Your task to perform on an android device: see tabs open on other devices in the chrome app Image 0: 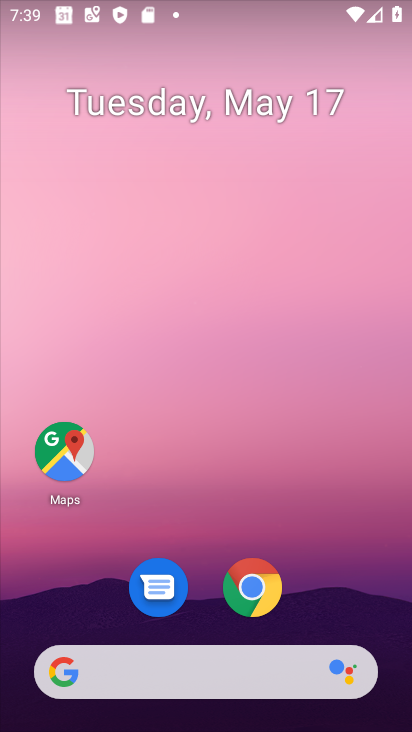
Step 0: click (255, 590)
Your task to perform on an android device: see tabs open on other devices in the chrome app Image 1: 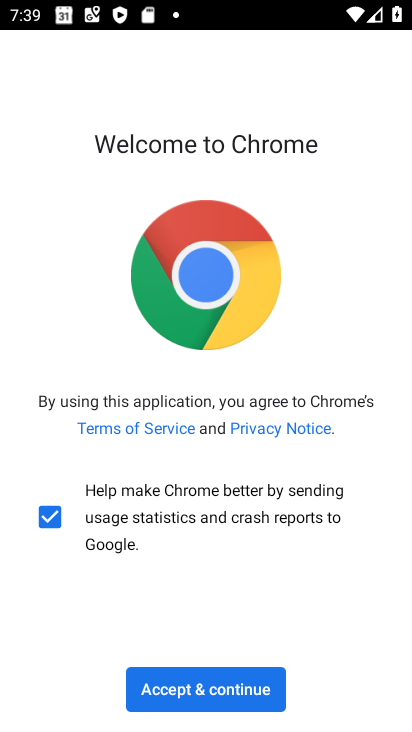
Step 1: click (181, 689)
Your task to perform on an android device: see tabs open on other devices in the chrome app Image 2: 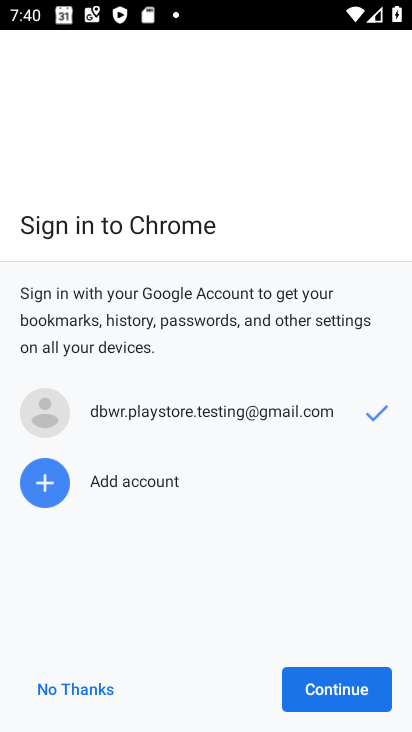
Step 2: click (331, 692)
Your task to perform on an android device: see tabs open on other devices in the chrome app Image 3: 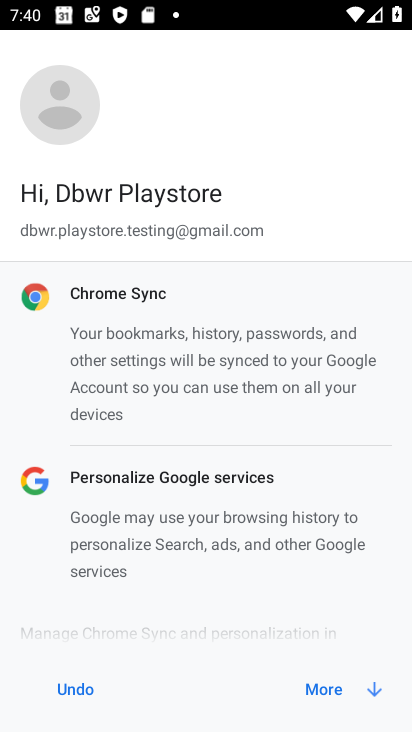
Step 3: click (329, 691)
Your task to perform on an android device: see tabs open on other devices in the chrome app Image 4: 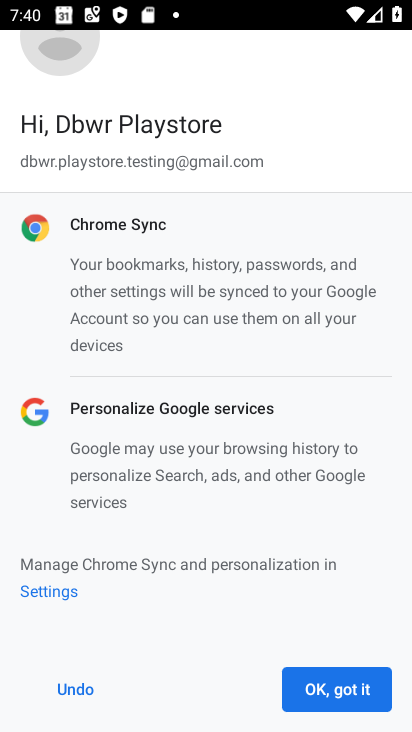
Step 4: click (329, 691)
Your task to perform on an android device: see tabs open on other devices in the chrome app Image 5: 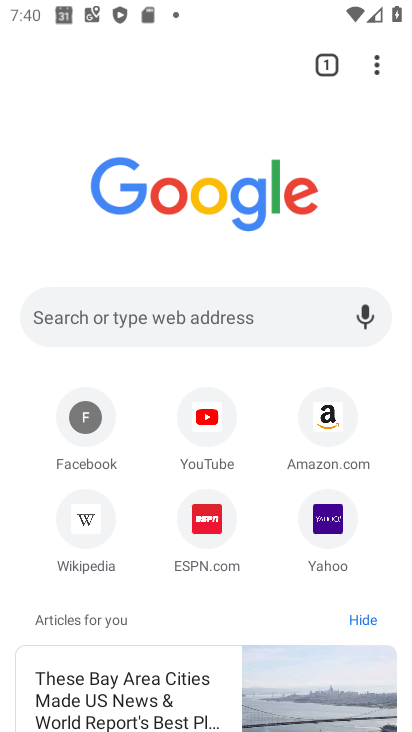
Step 5: click (330, 58)
Your task to perform on an android device: see tabs open on other devices in the chrome app Image 6: 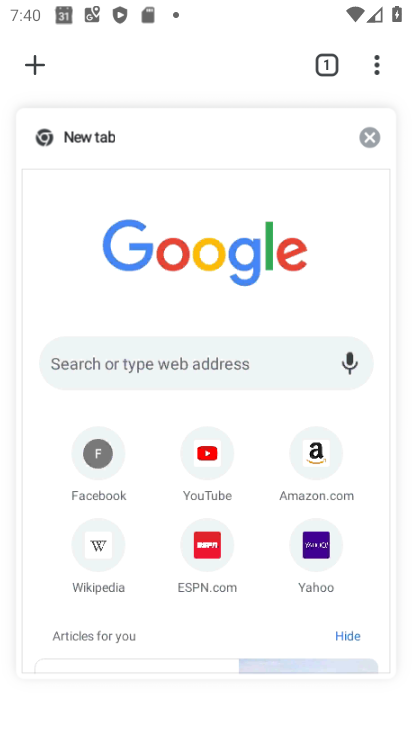
Step 6: task complete